Your task to perform on an android device: open app "AliExpress" (install if not already installed) Image 0: 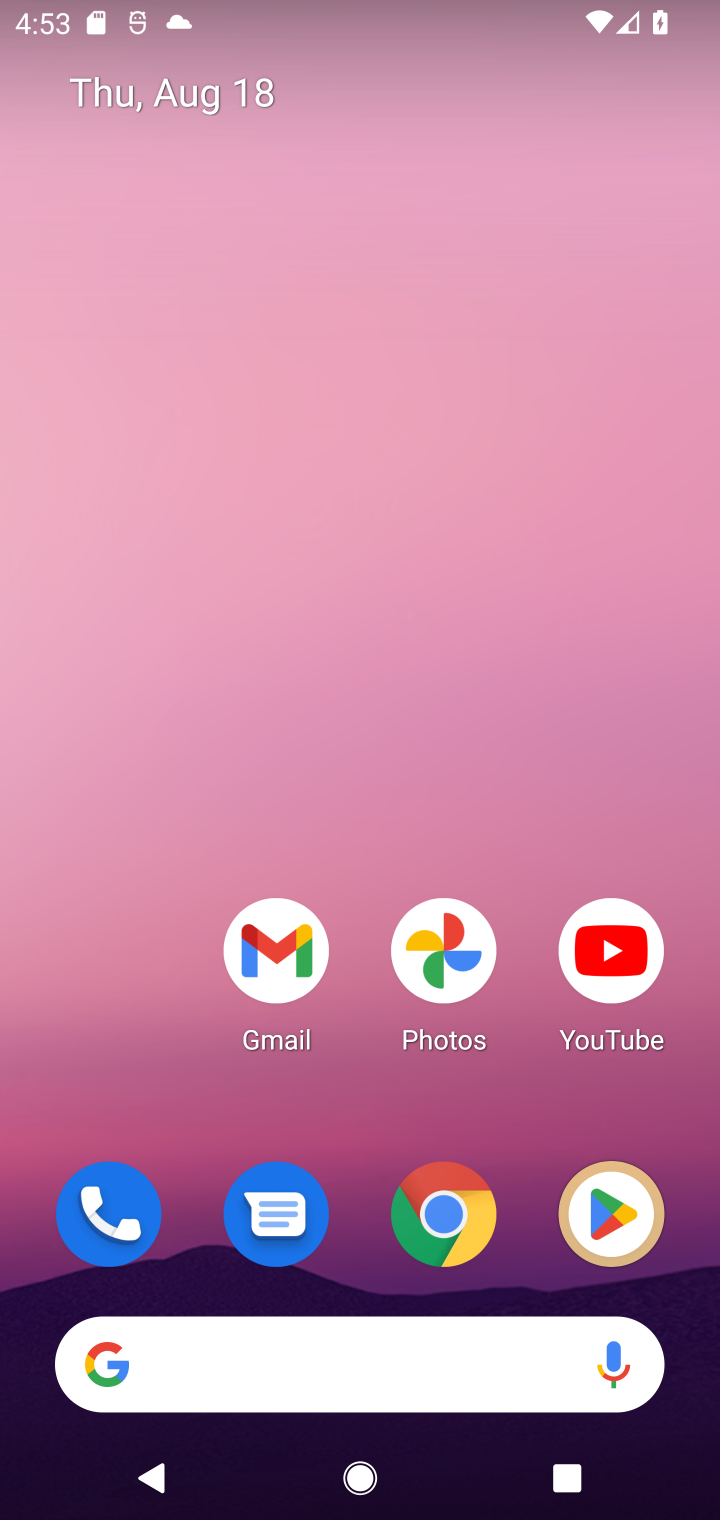
Step 0: click (601, 1210)
Your task to perform on an android device: open app "AliExpress" (install if not already installed) Image 1: 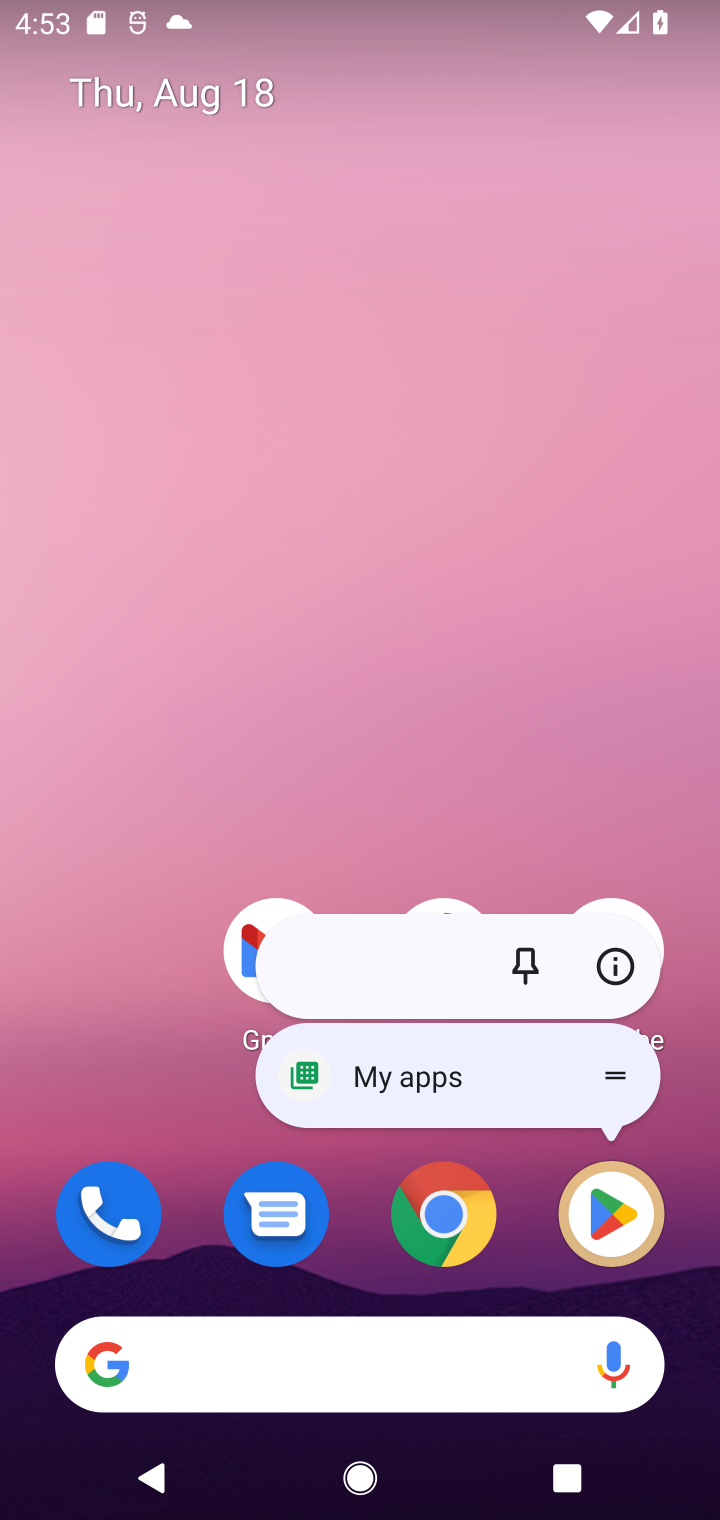
Step 1: click (597, 1198)
Your task to perform on an android device: open app "AliExpress" (install if not already installed) Image 2: 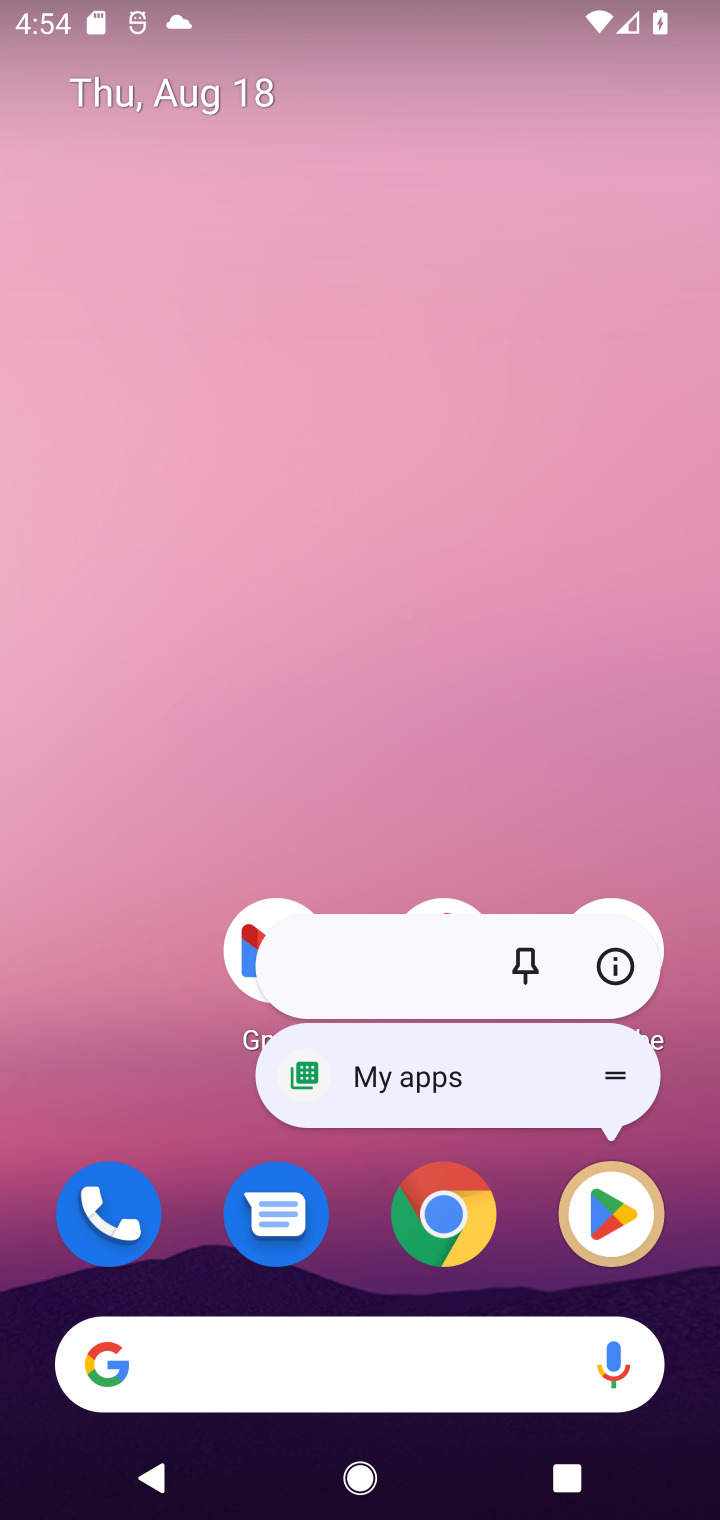
Step 2: click (595, 1200)
Your task to perform on an android device: open app "AliExpress" (install if not already installed) Image 3: 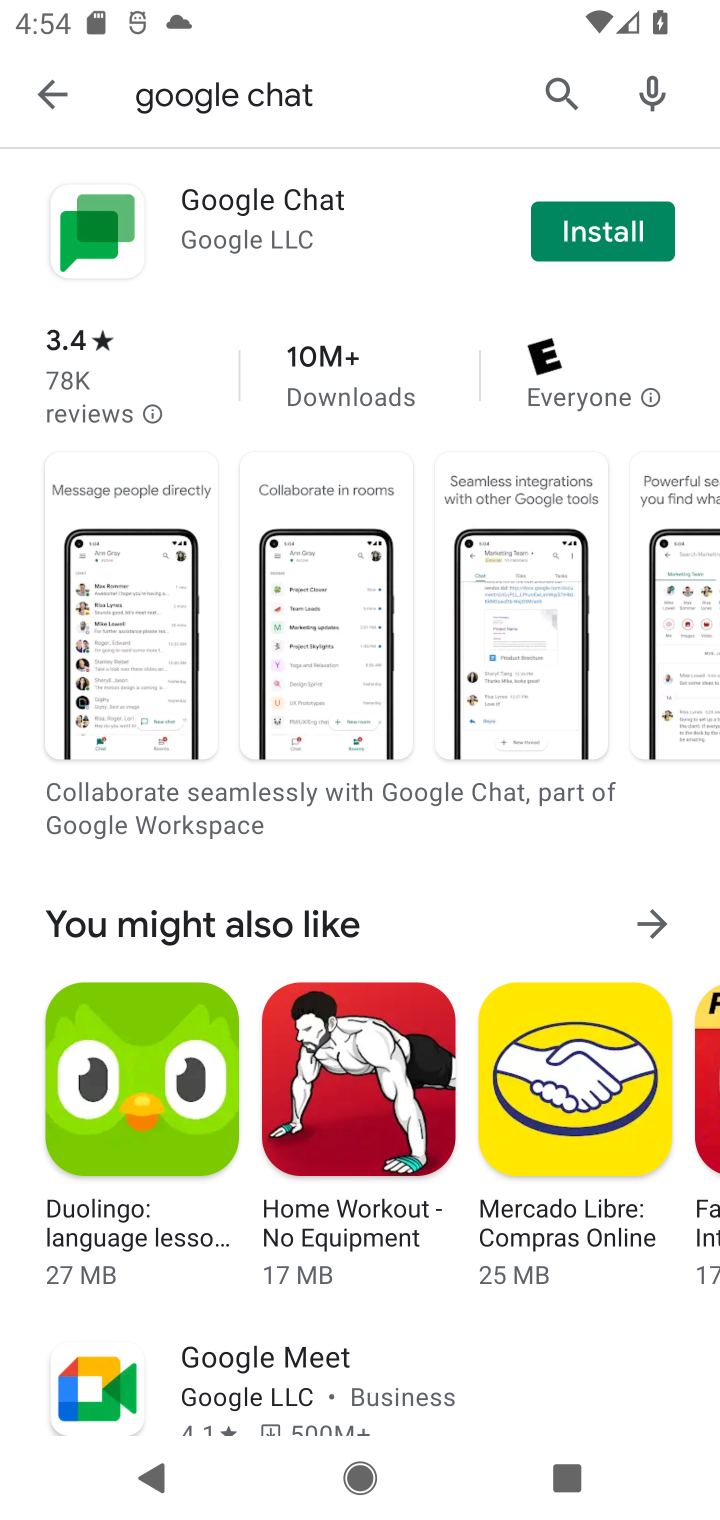
Step 3: click (204, 98)
Your task to perform on an android device: open app "AliExpress" (install if not already installed) Image 4: 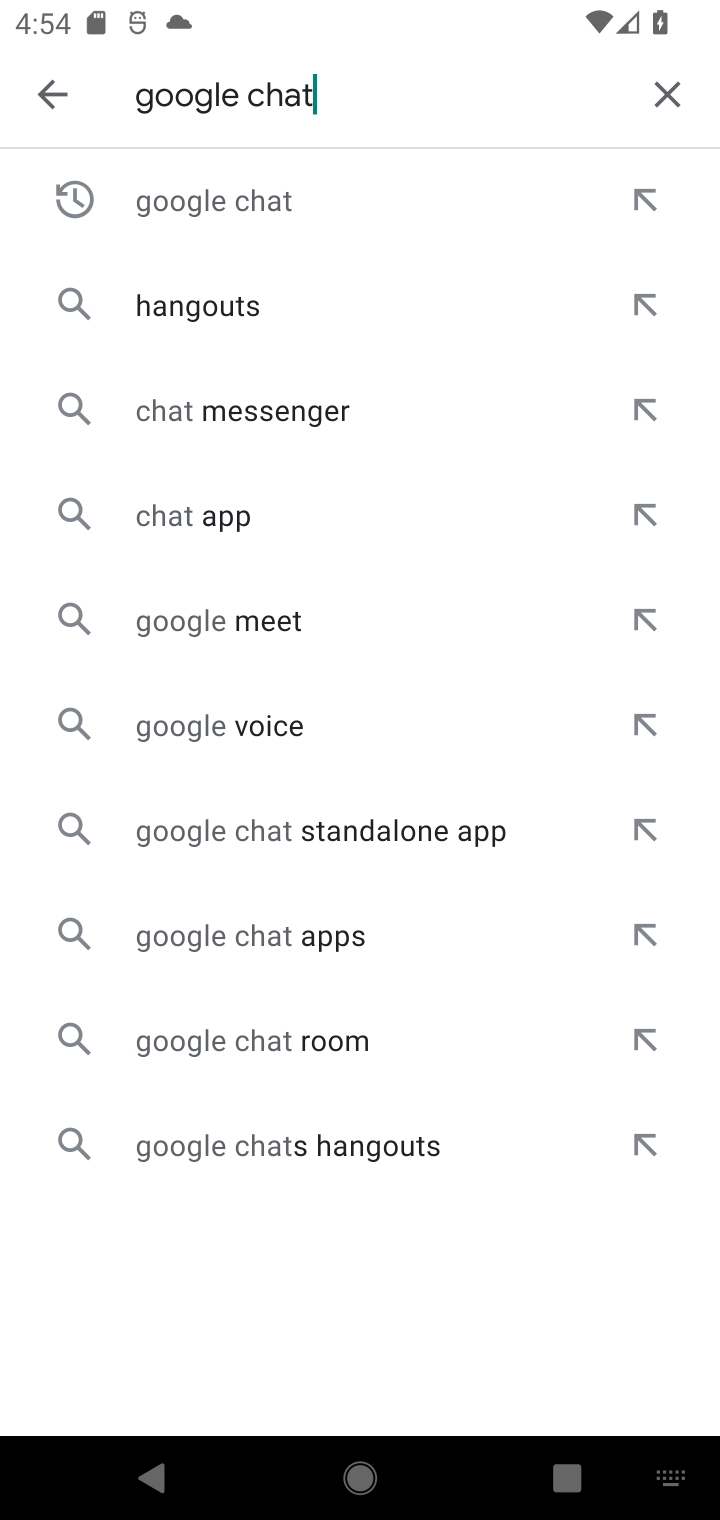
Step 4: click (667, 82)
Your task to perform on an android device: open app "AliExpress" (install if not already installed) Image 5: 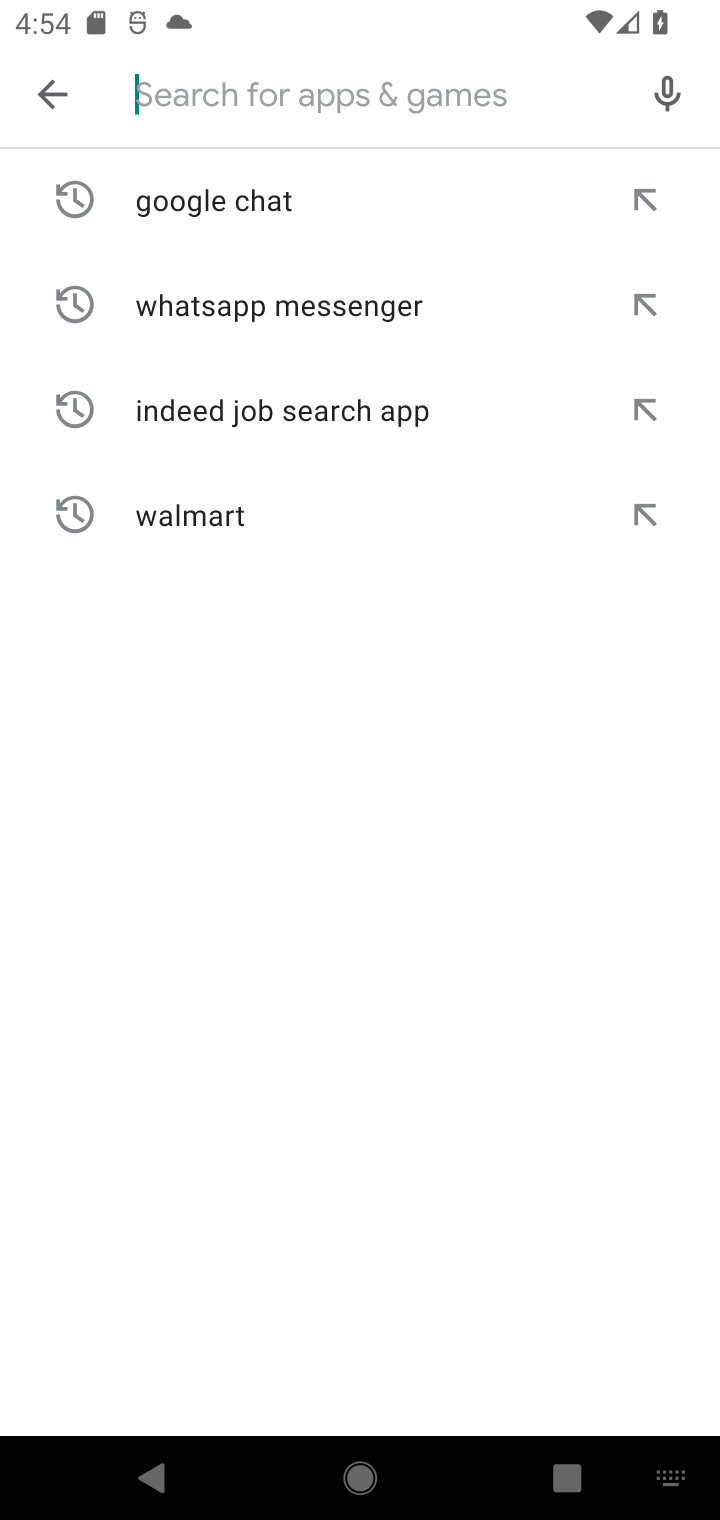
Step 5: type "Ali Express"
Your task to perform on an android device: open app "AliExpress" (install if not already installed) Image 6: 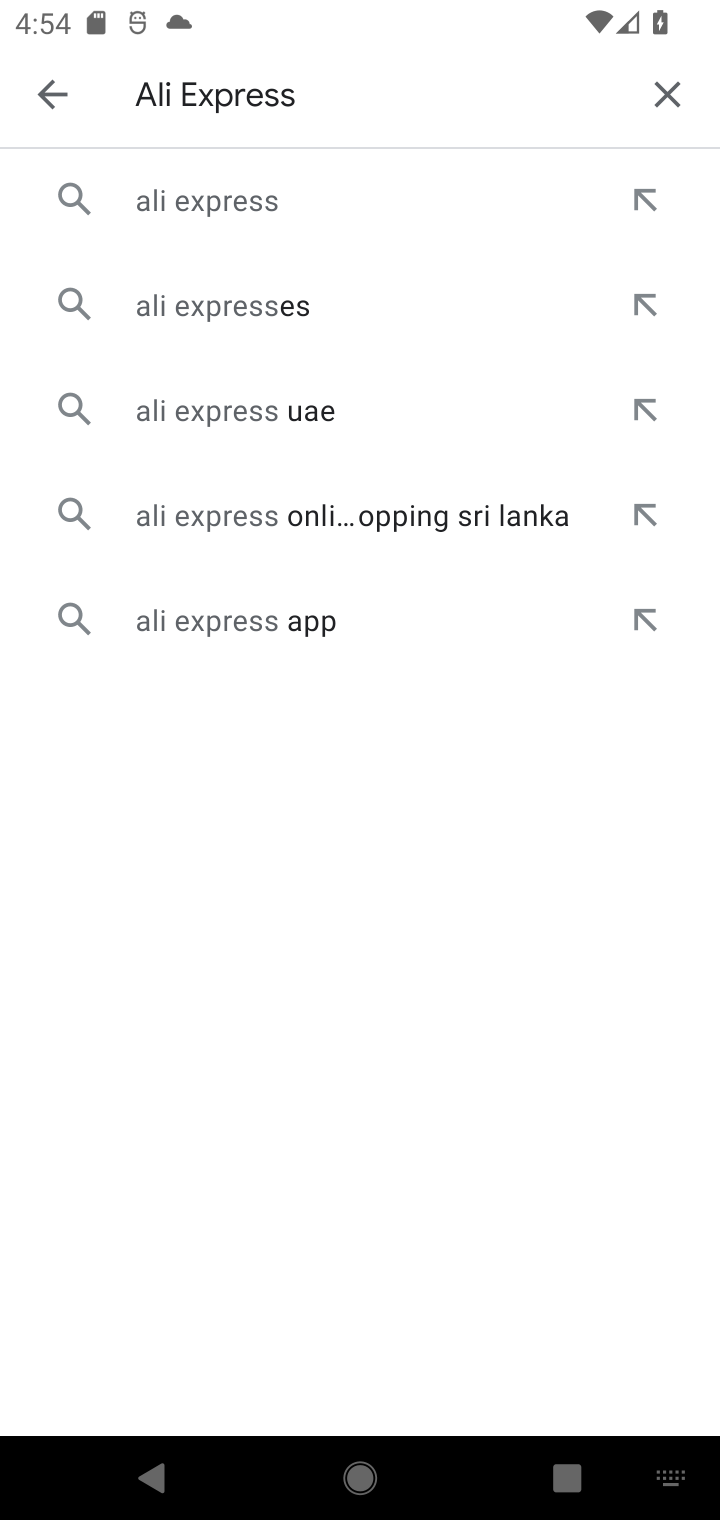
Step 6: click (142, 215)
Your task to perform on an android device: open app "AliExpress" (install if not already installed) Image 7: 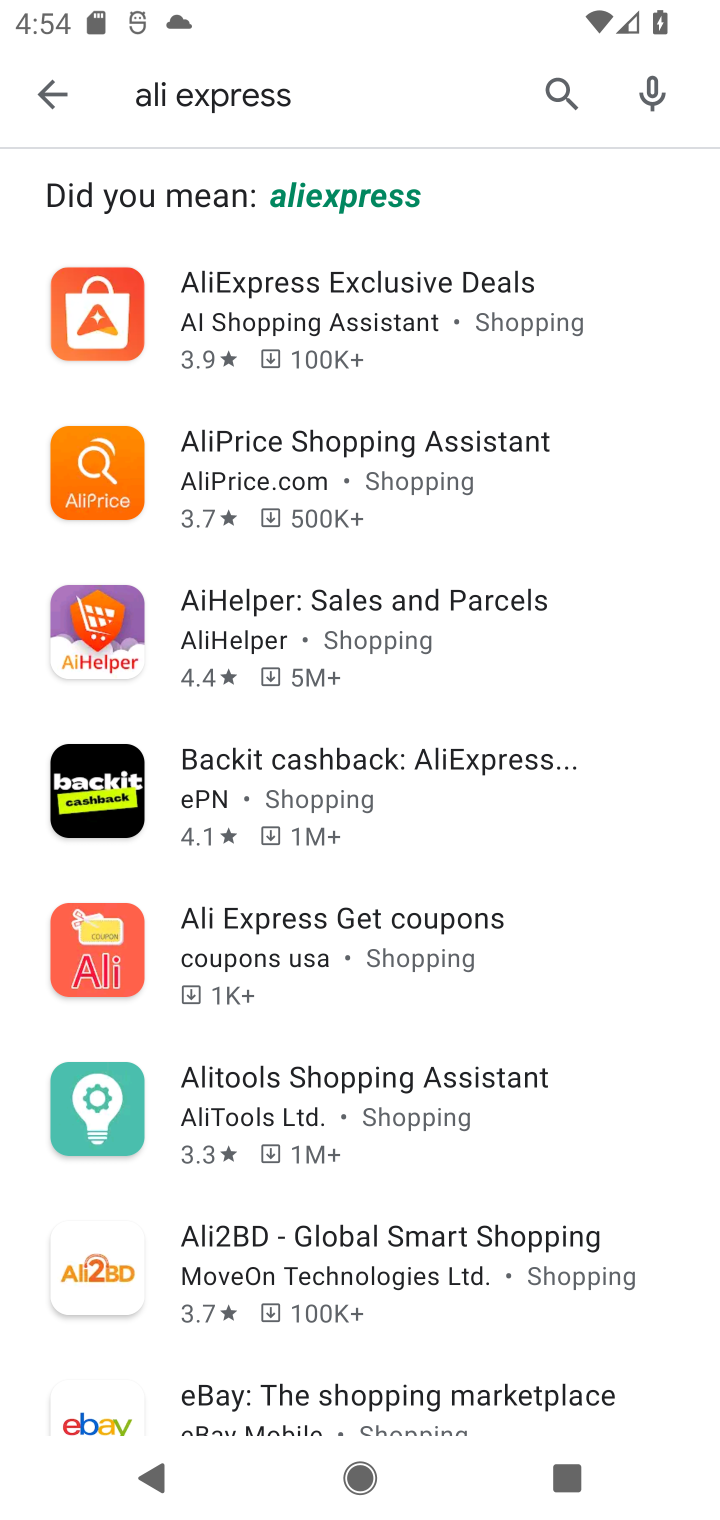
Step 7: click (320, 322)
Your task to perform on an android device: open app "AliExpress" (install if not already installed) Image 8: 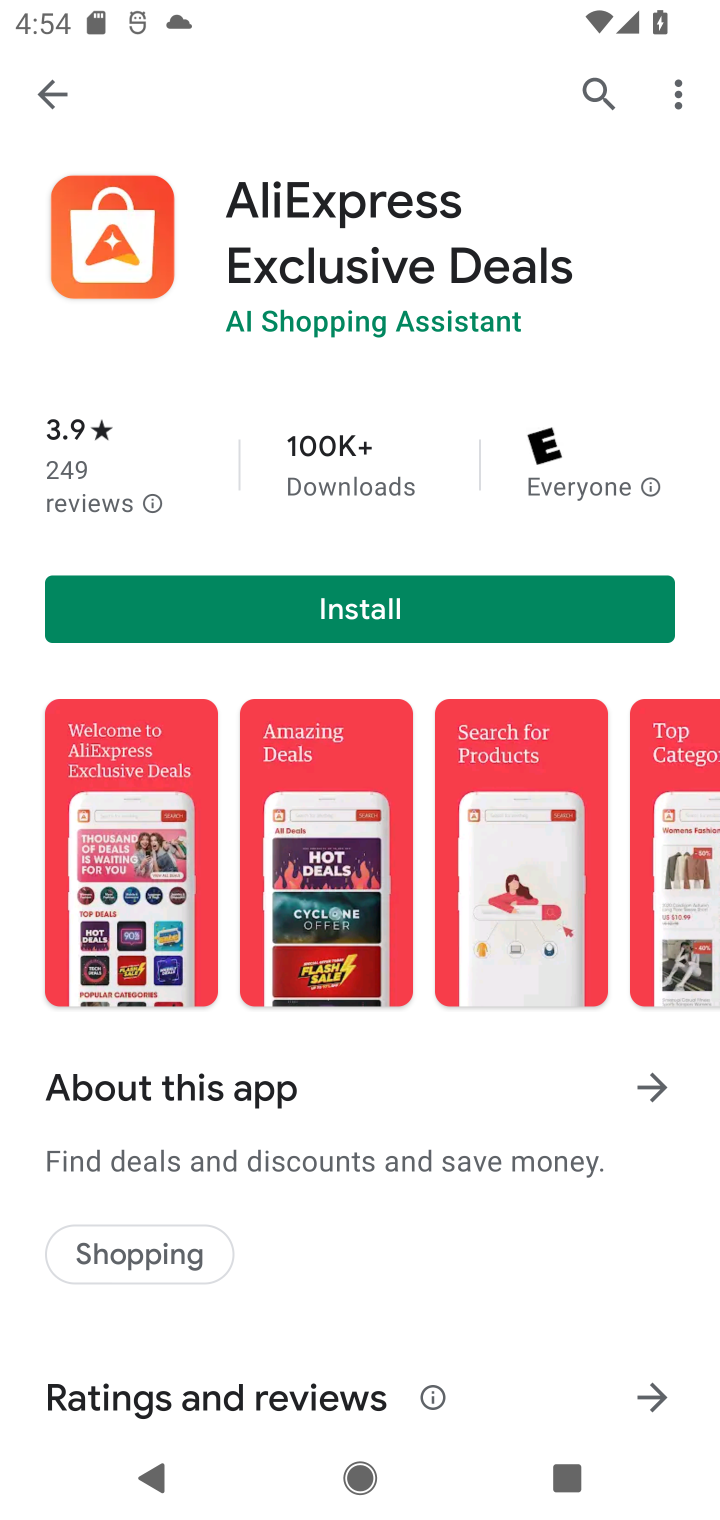
Step 8: click (399, 591)
Your task to perform on an android device: open app "AliExpress" (install if not already installed) Image 9: 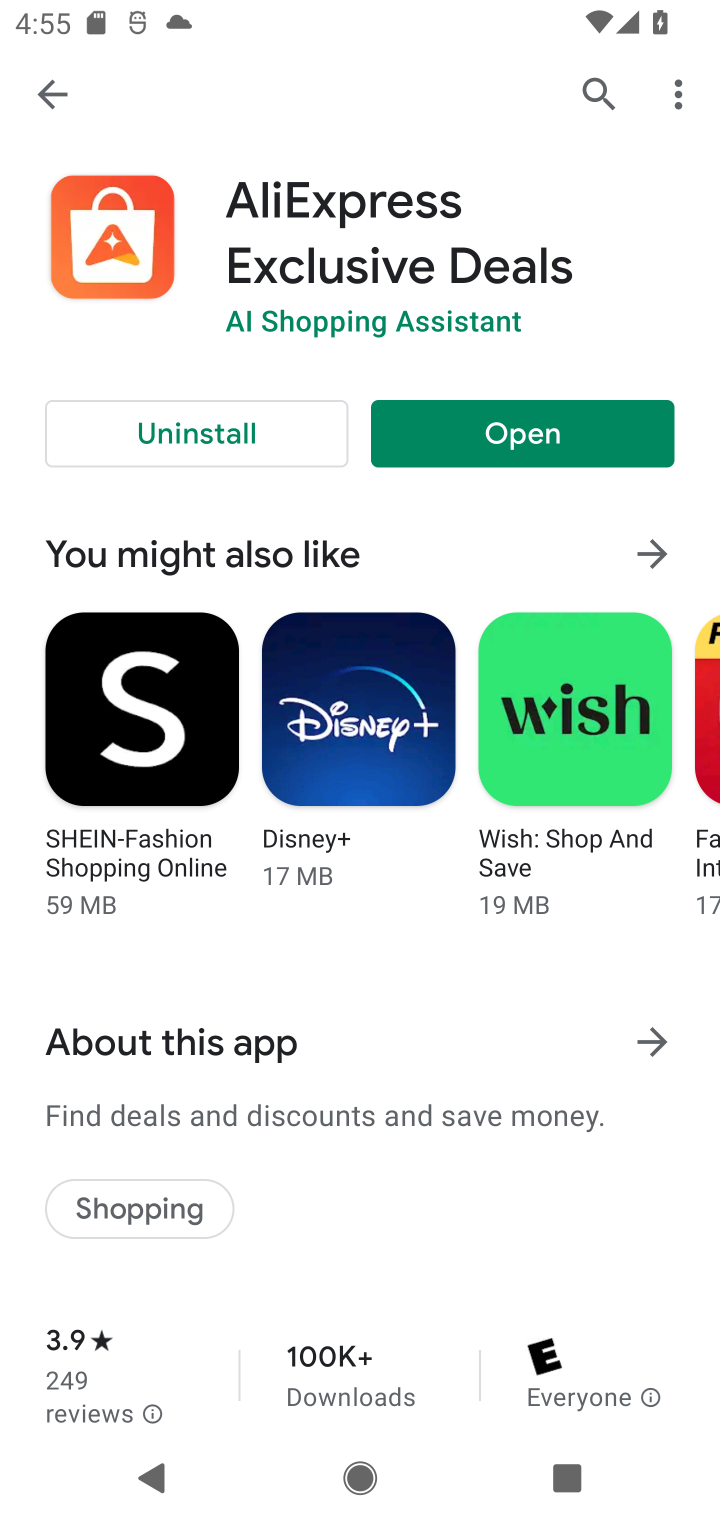
Step 9: task complete